Your task to perform on an android device: Check the weather Image 0: 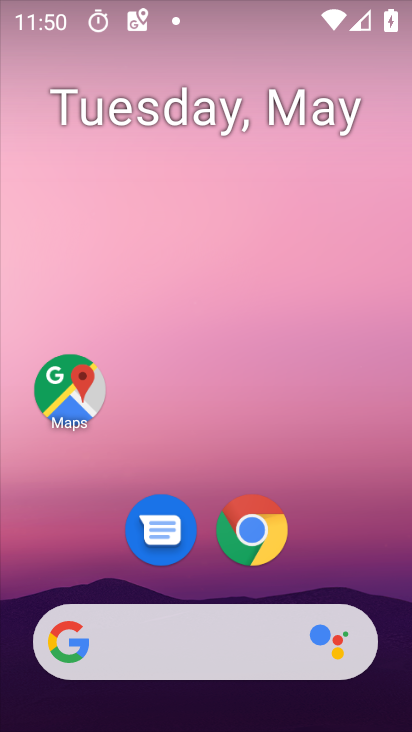
Step 0: drag from (190, 623) to (233, 144)
Your task to perform on an android device: Check the weather Image 1: 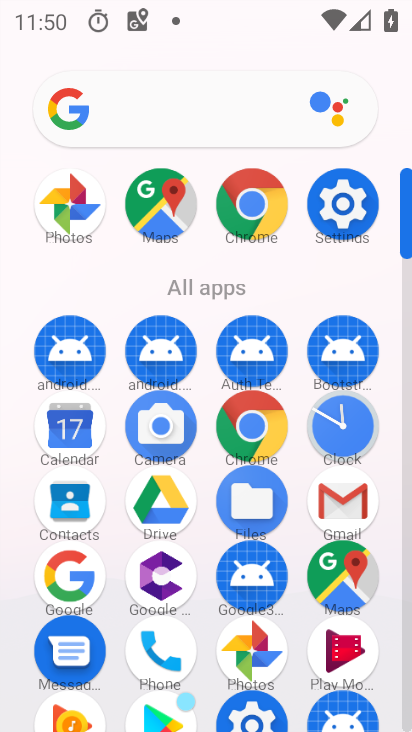
Step 1: task complete